Your task to perform on an android device: Open settings on Google Maps Image 0: 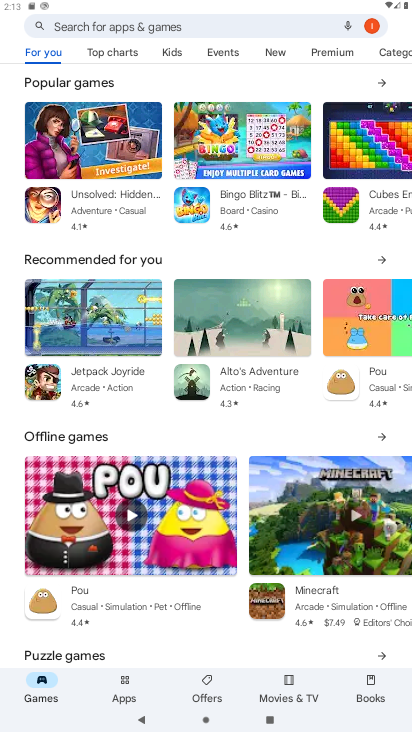
Step 0: press home button
Your task to perform on an android device: Open settings on Google Maps Image 1: 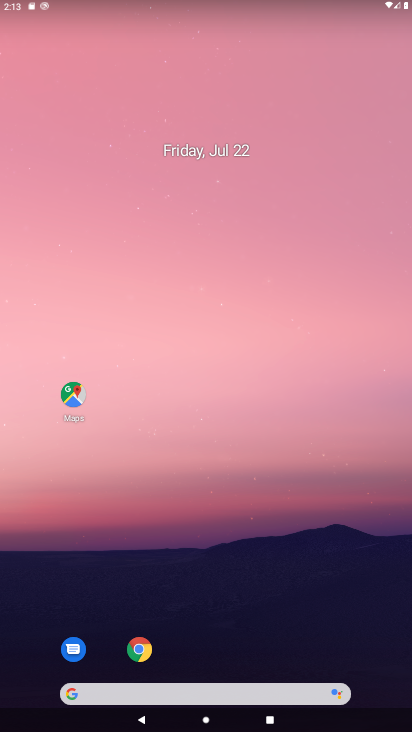
Step 1: drag from (225, 618) to (225, 54)
Your task to perform on an android device: Open settings on Google Maps Image 2: 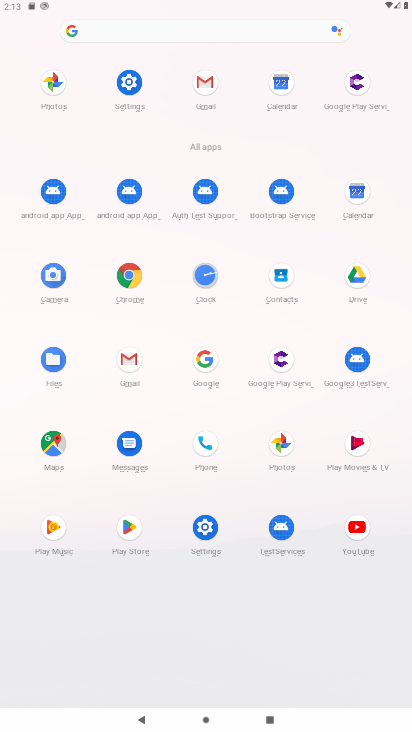
Step 2: click (52, 437)
Your task to perform on an android device: Open settings on Google Maps Image 3: 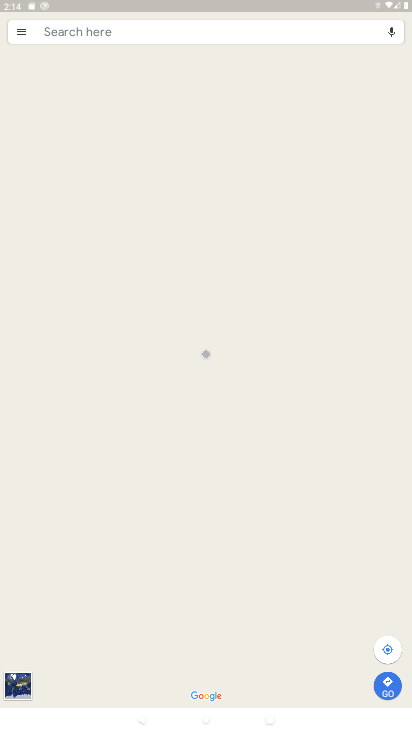
Step 3: click (22, 34)
Your task to perform on an android device: Open settings on Google Maps Image 4: 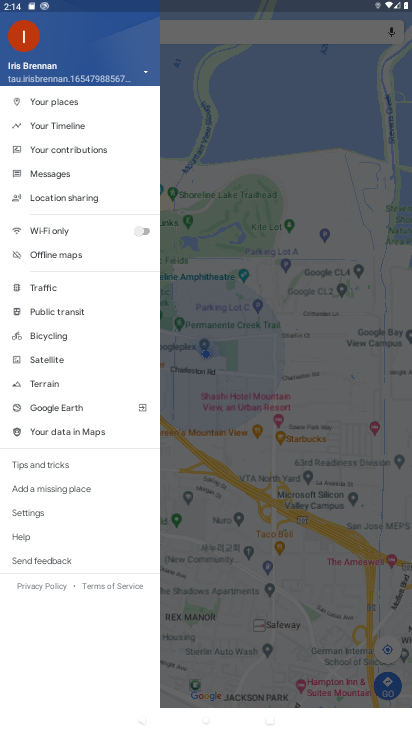
Step 4: click (30, 513)
Your task to perform on an android device: Open settings on Google Maps Image 5: 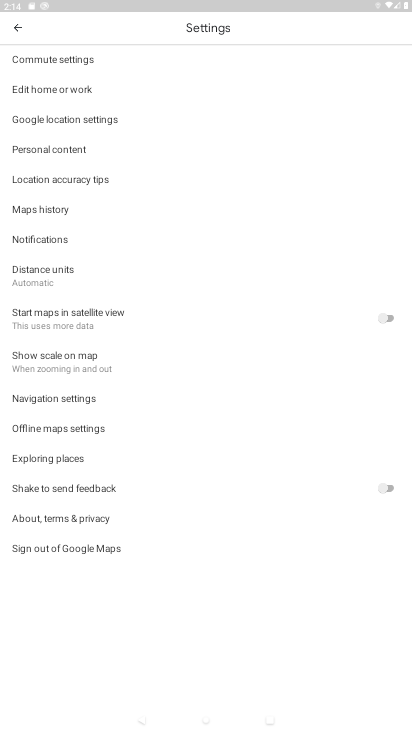
Step 5: task complete